Your task to perform on an android device: Open network settings Image 0: 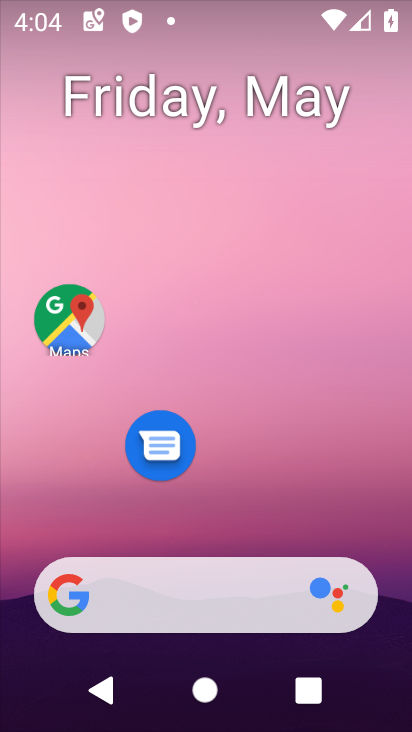
Step 0: drag from (225, 511) to (293, 14)
Your task to perform on an android device: Open network settings Image 1: 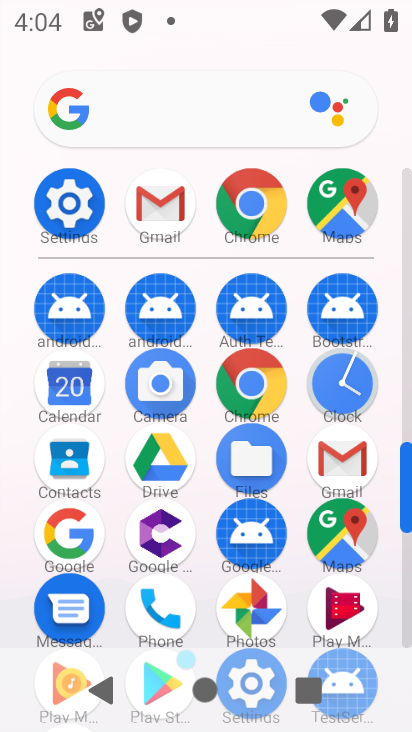
Step 1: click (77, 222)
Your task to perform on an android device: Open network settings Image 2: 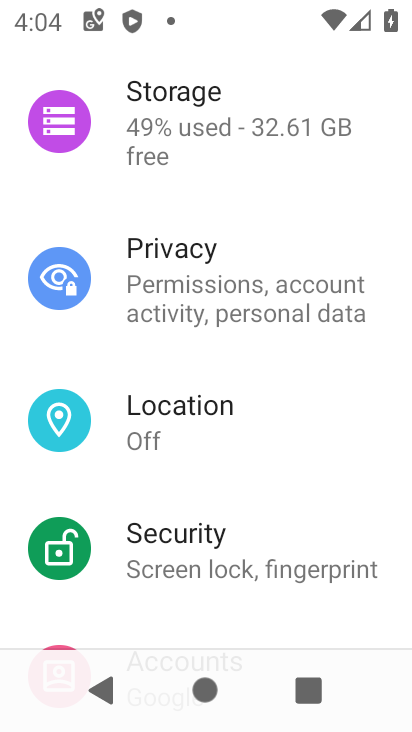
Step 2: drag from (180, 262) to (179, 565)
Your task to perform on an android device: Open network settings Image 3: 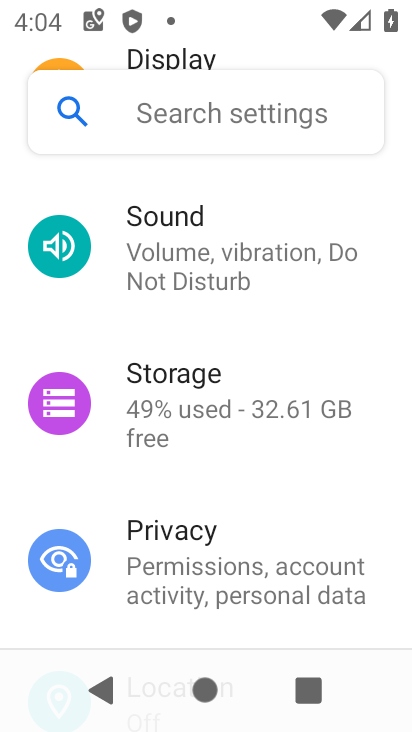
Step 3: drag from (221, 300) to (201, 660)
Your task to perform on an android device: Open network settings Image 4: 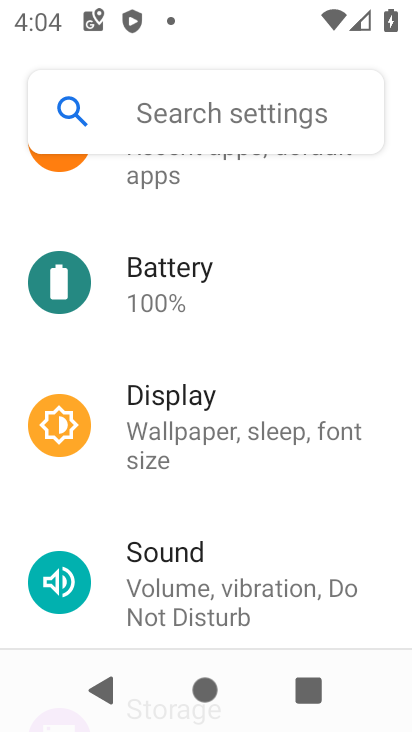
Step 4: drag from (248, 282) to (255, 621)
Your task to perform on an android device: Open network settings Image 5: 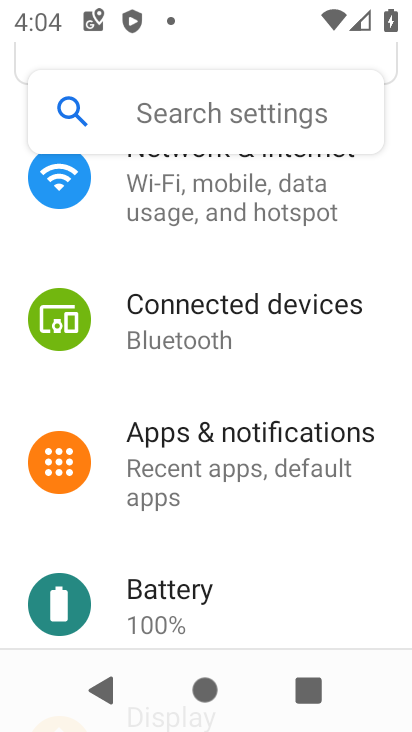
Step 5: drag from (243, 303) to (221, 602)
Your task to perform on an android device: Open network settings Image 6: 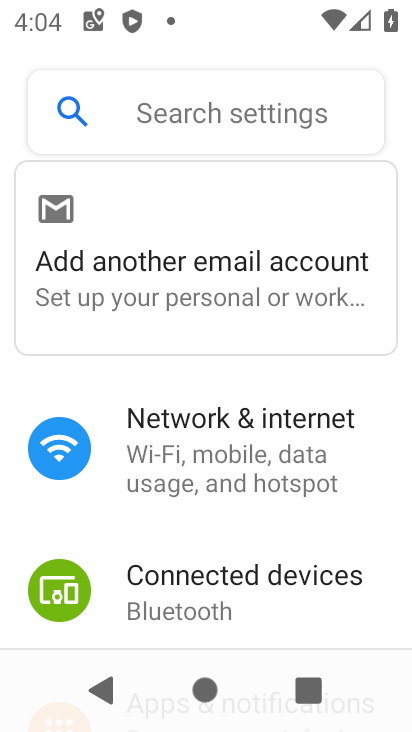
Step 6: click (188, 472)
Your task to perform on an android device: Open network settings Image 7: 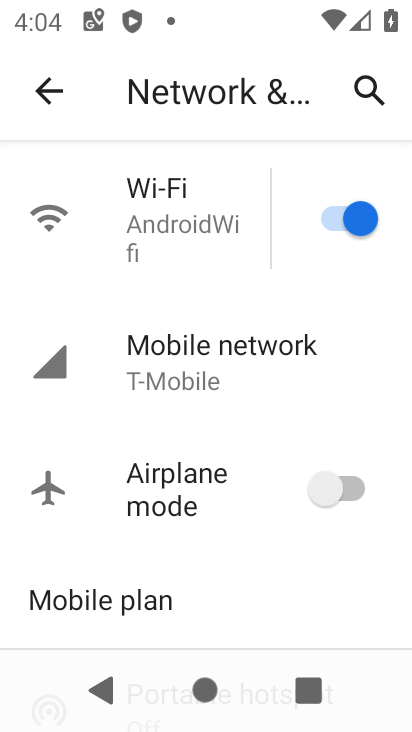
Step 7: task complete